Your task to perform on an android device: change your default location settings in chrome Image 0: 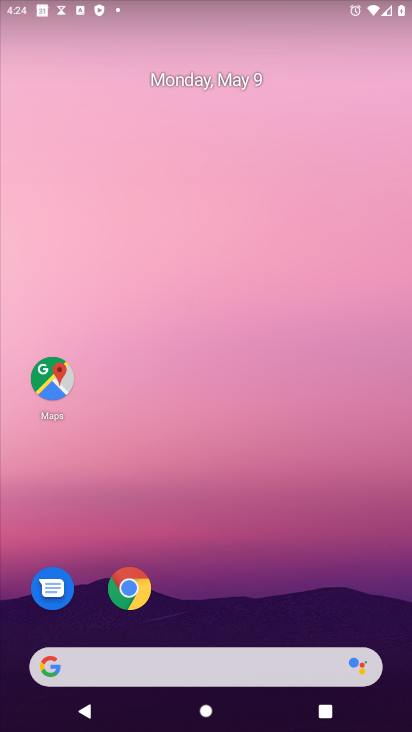
Step 0: click (137, 606)
Your task to perform on an android device: change your default location settings in chrome Image 1: 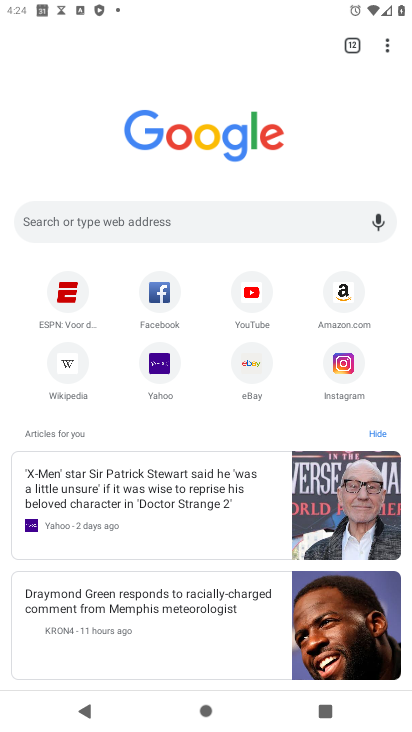
Step 1: click (385, 48)
Your task to perform on an android device: change your default location settings in chrome Image 2: 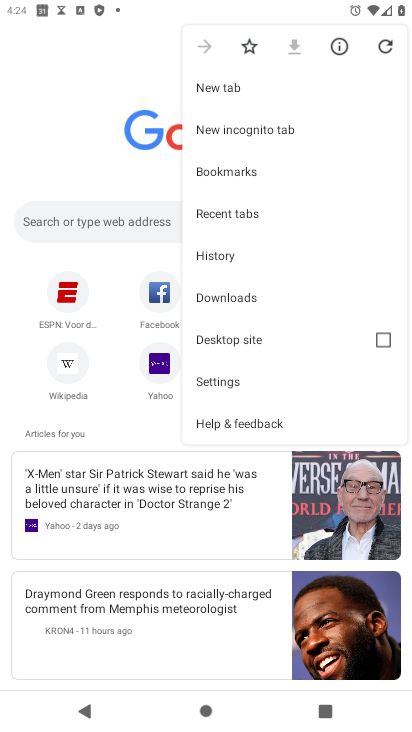
Step 2: click (236, 373)
Your task to perform on an android device: change your default location settings in chrome Image 3: 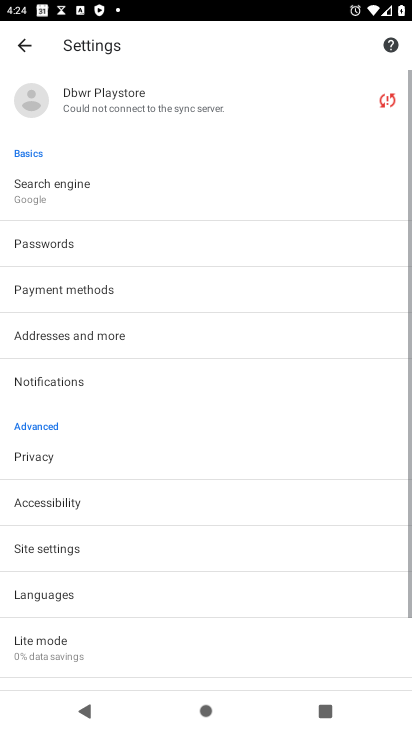
Step 3: click (91, 538)
Your task to perform on an android device: change your default location settings in chrome Image 4: 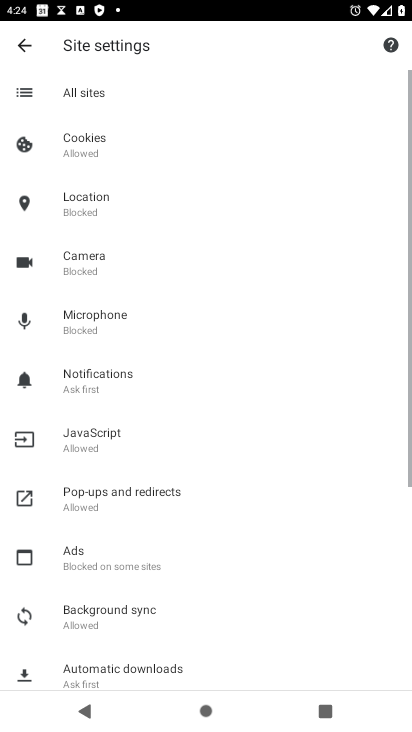
Step 4: click (150, 207)
Your task to perform on an android device: change your default location settings in chrome Image 5: 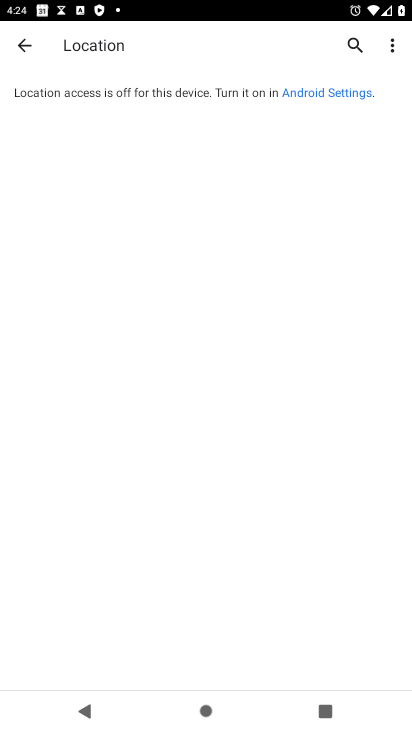
Step 5: task complete